Your task to perform on an android device: Open Youtube and go to the subscriptions tab Image 0: 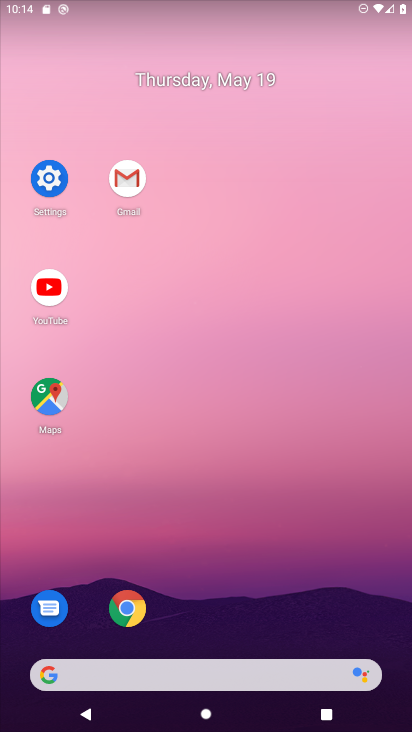
Step 0: click (41, 292)
Your task to perform on an android device: Open Youtube and go to the subscriptions tab Image 1: 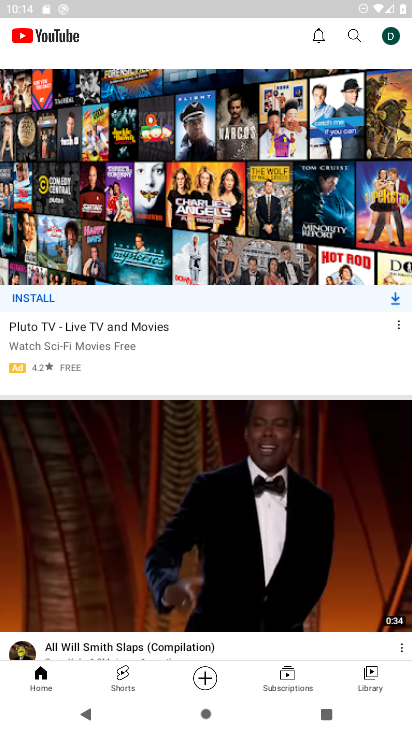
Step 1: click (289, 687)
Your task to perform on an android device: Open Youtube and go to the subscriptions tab Image 2: 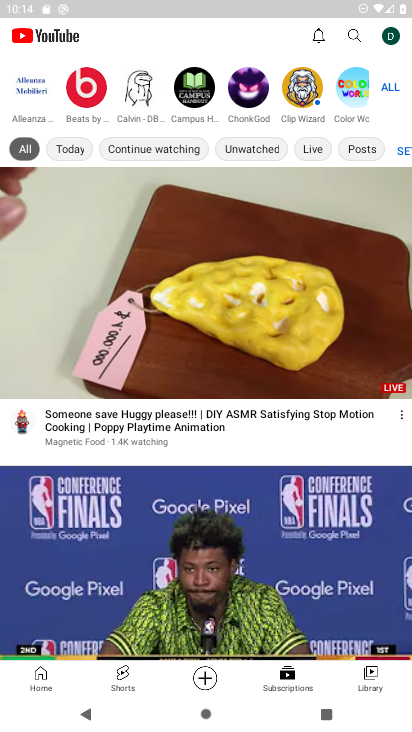
Step 2: task complete